Your task to perform on an android device: Open network settings Image 0: 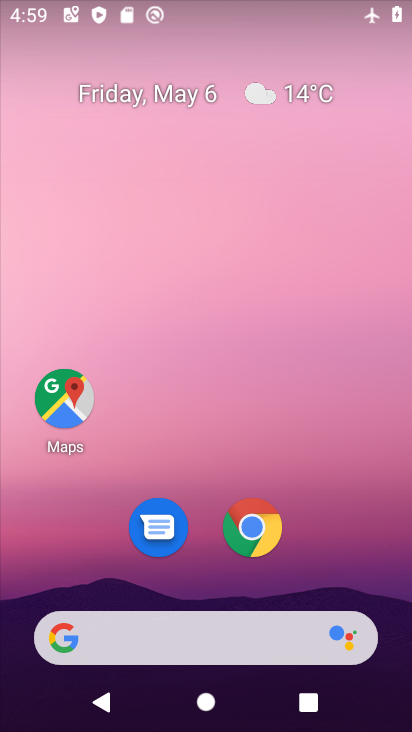
Step 0: drag from (211, 724) to (176, 143)
Your task to perform on an android device: Open network settings Image 1: 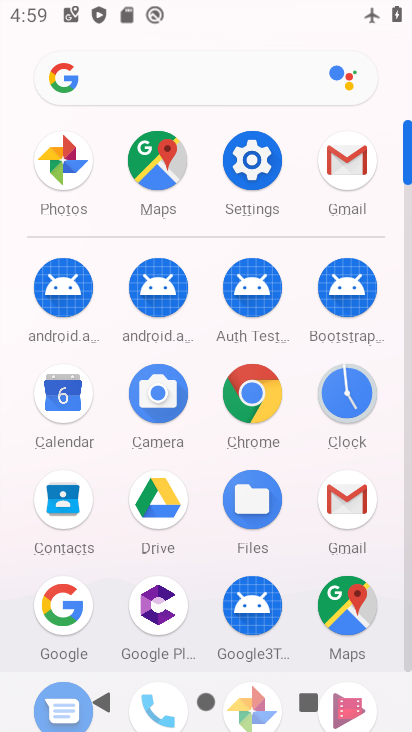
Step 1: click (240, 152)
Your task to perform on an android device: Open network settings Image 2: 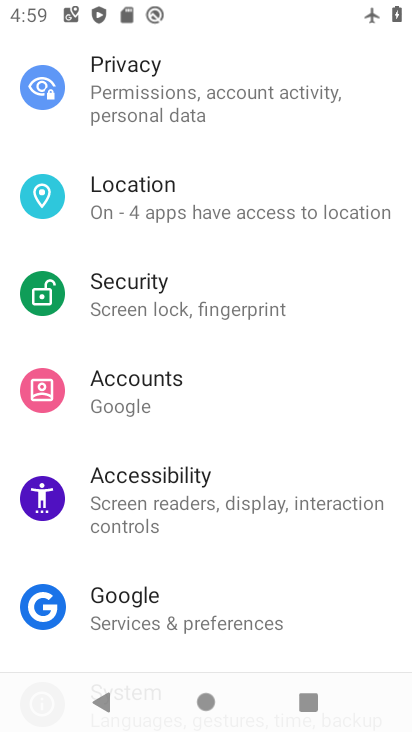
Step 2: drag from (191, 119) to (188, 466)
Your task to perform on an android device: Open network settings Image 3: 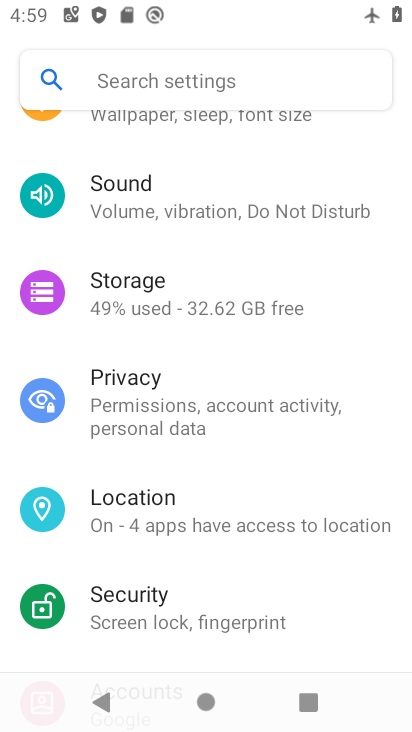
Step 3: drag from (194, 151) to (176, 487)
Your task to perform on an android device: Open network settings Image 4: 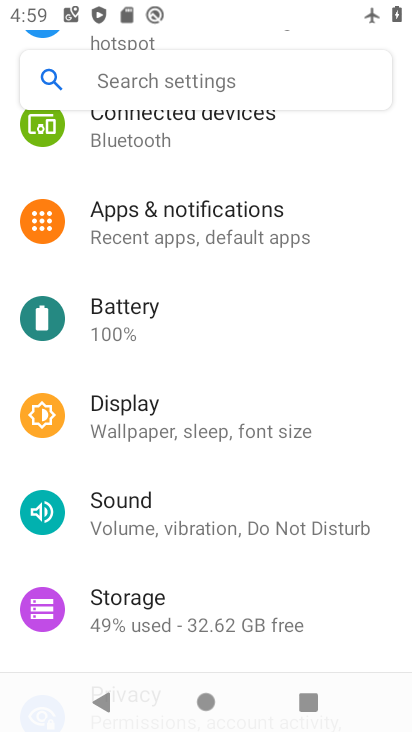
Step 4: drag from (183, 144) to (185, 523)
Your task to perform on an android device: Open network settings Image 5: 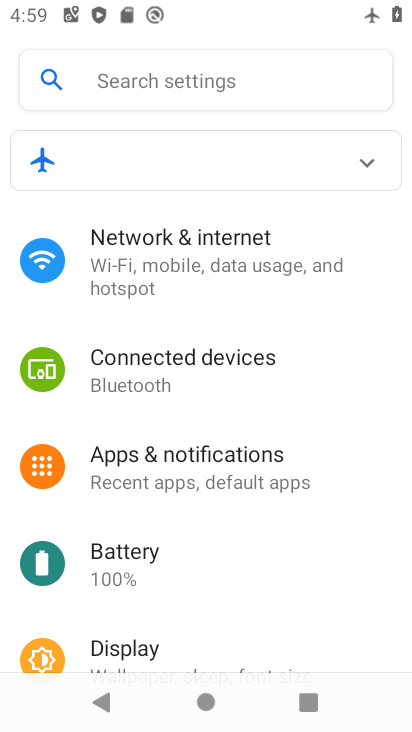
Step 5: click (152, 253)
Your task to perform on an android device: Open network settings Image 6: 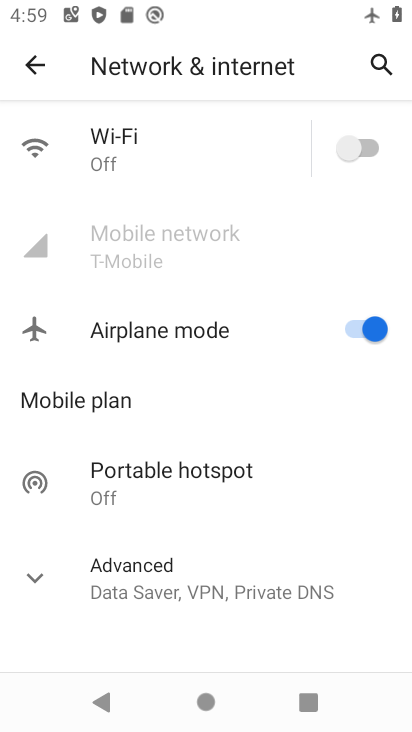
Step 6: click (356, 327)
Your task to perform on an android device: Open network settings Image 7: 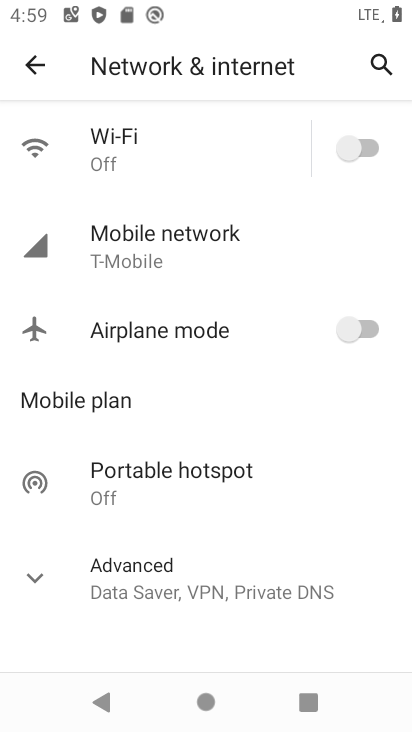
Step 7: click (170, 234)
Your task to perform on an android device: Open network settings Image 8: 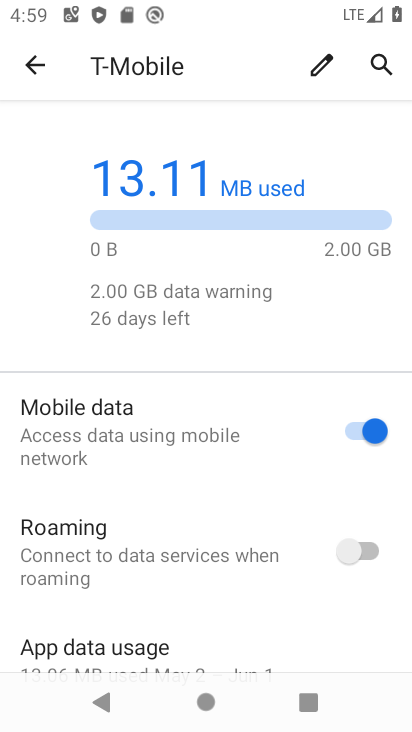
Step 8: task complete